Your task to perform on an android device: turn on translation in the chrome app Image 0: 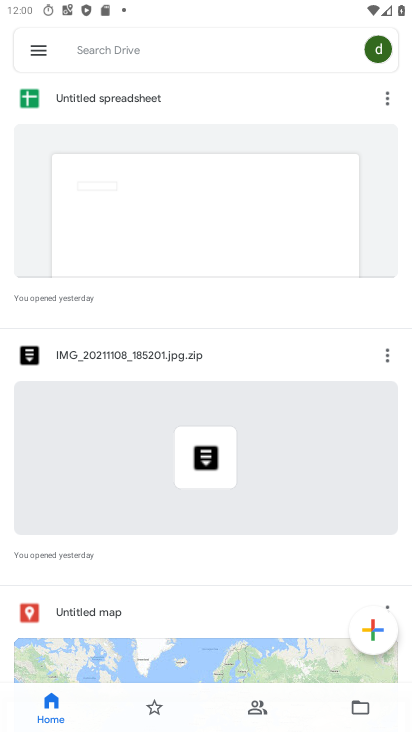
Step 0: press home button
Your task to perform on an android device: turn on translation in the chrome app Image 1: 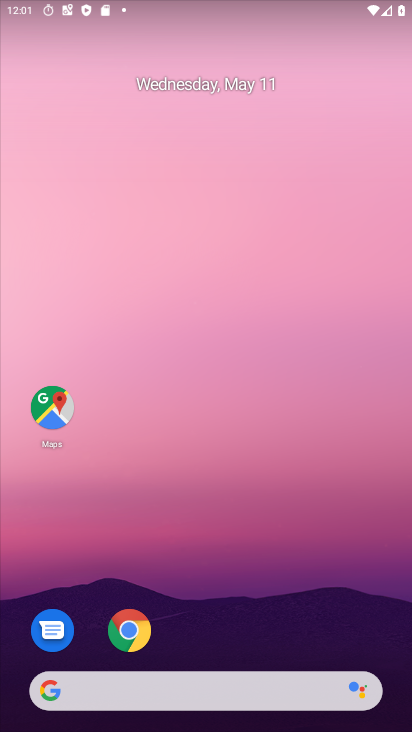
Step 1: click (137, 627)
Your task to perform on an android device: turn on translation in the chrome app Image 2: 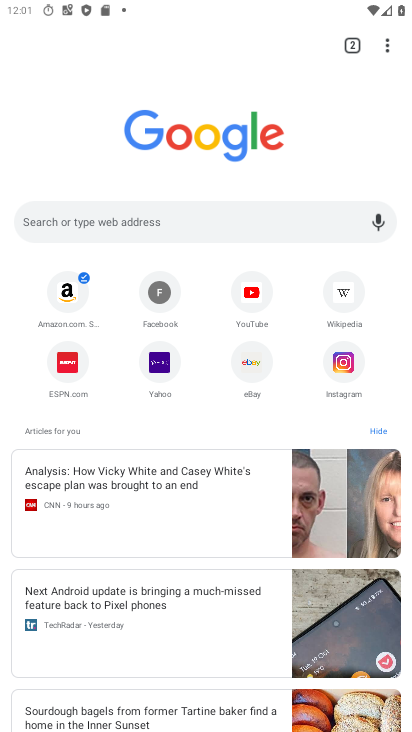
Step 2: drag from (378, 42) to (227, 377)
Your task to perform on an android device: turn on translation in the chrome app Image 3: 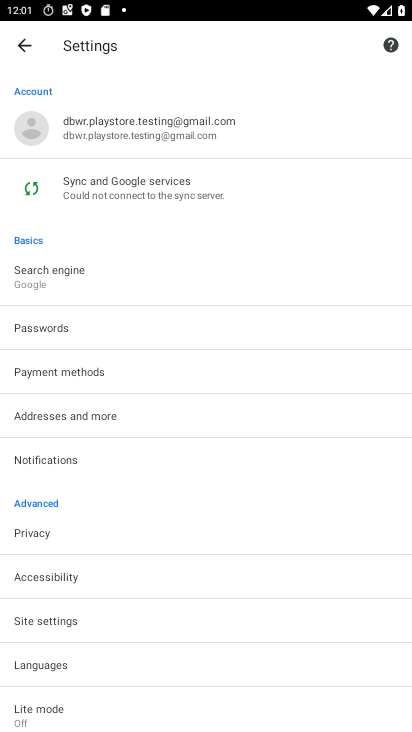
Step 3: drag from (187, 593) to (290, 148)
Your task to perform on an android device: turn on translation in the chrome app Image 4: 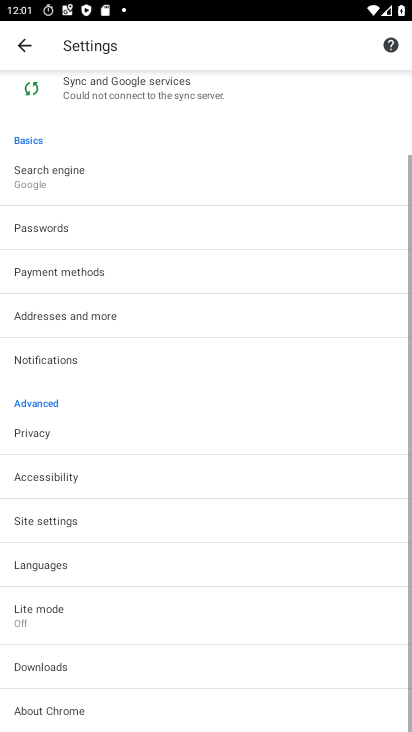
Step 4: click (67, 561)
Your task to perform on an android device: turn on translation in the chrome app Image 5: 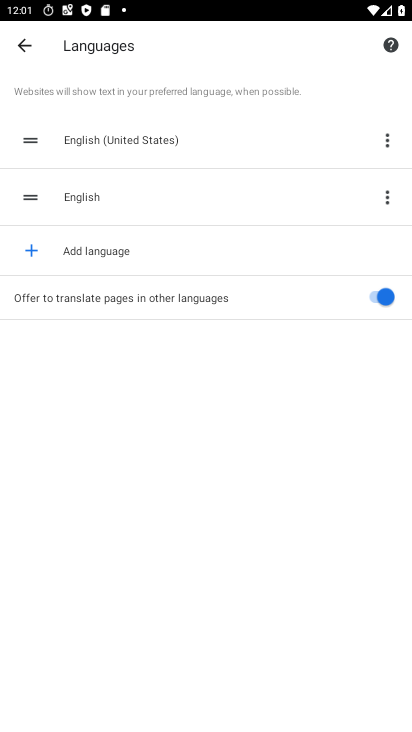
Step 5: task complete